Your task to perform on an android device: find snoozed emails in the gmail app Image 0: 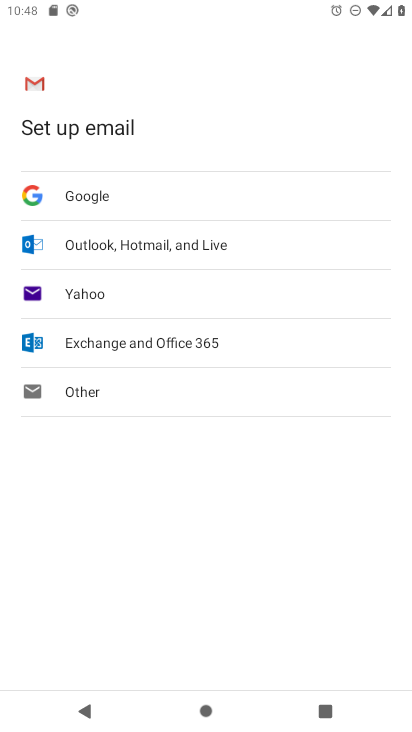
Step 0: press home button
Your task to perform on an android device: find snoozed emails in the gmail app Image 1: 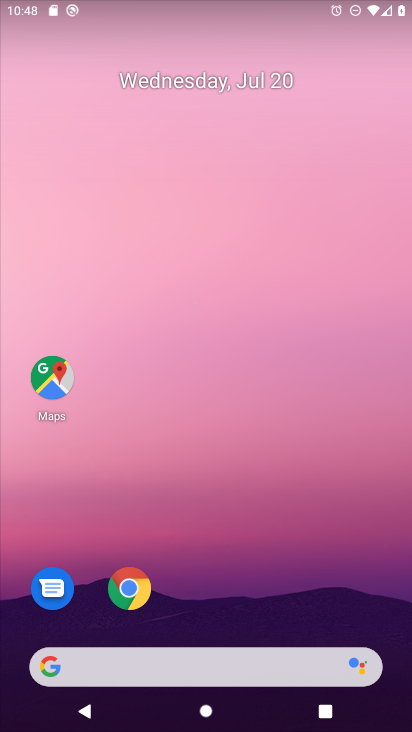
Step 1: drag from (253, 623) to (206, 128)
Your task to perform on an android device: find snoozed emails in the gmail app Image 2: 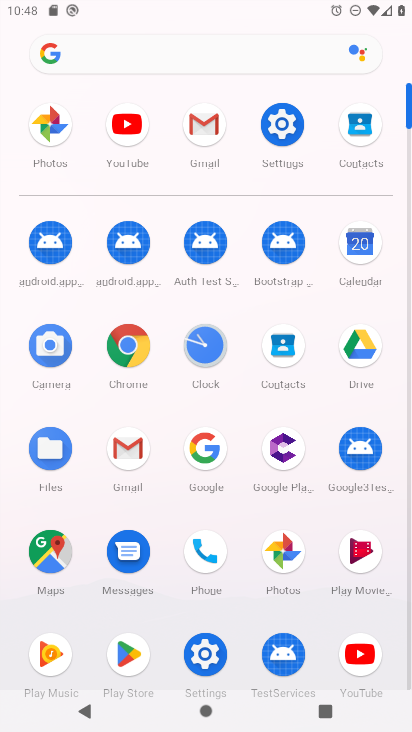
Step 2: click (206, 128)
Your task to perform on an android device: find snoozed emails in the gmail app Image 3: 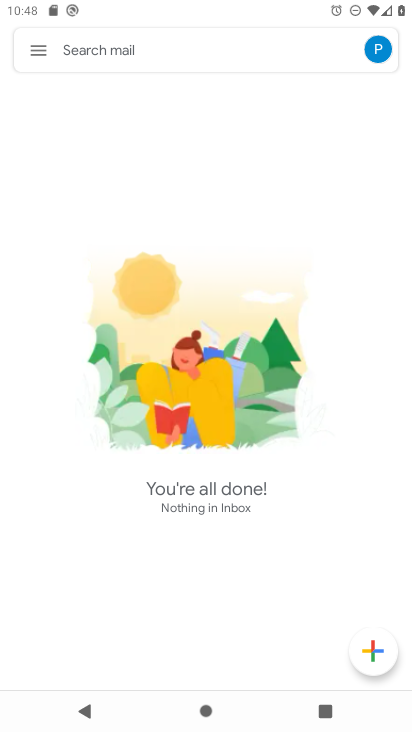
Step 3: click (49, 58)
Your task to perform on an android device: find snoozed emails in the gmail app Image 4: 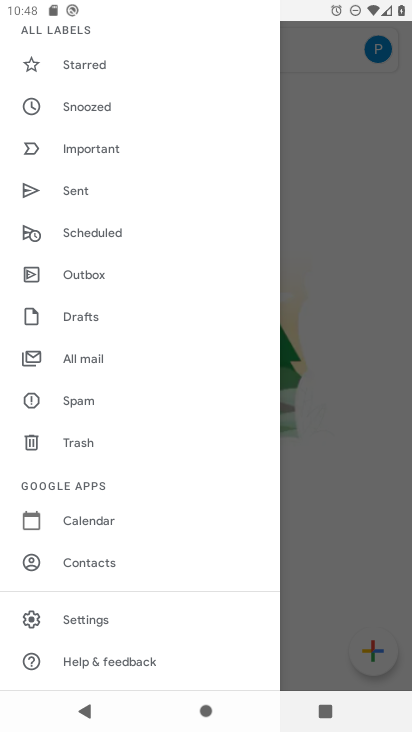
Step 4: click (136, 108)
Your task to perform on an android device: find snoozed emails in the gmail app Image 5: 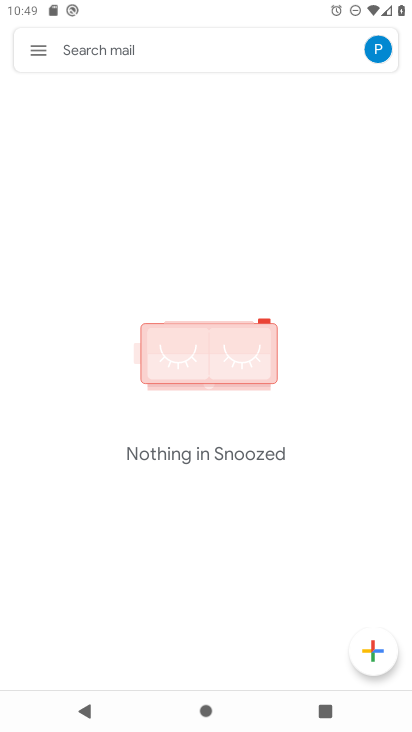
Step 5: task complete